Your task to perform on an android device: delete a single message in the gmail app Image 0: 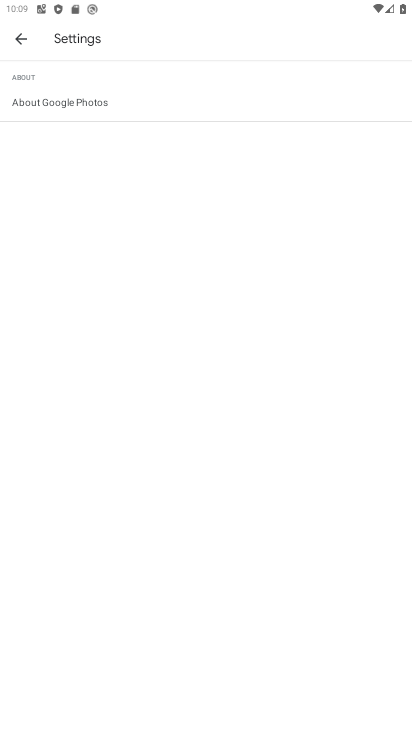
Step 0: press home button
Your task to perform on an android device: delete a single message in the gmail app Image 1: 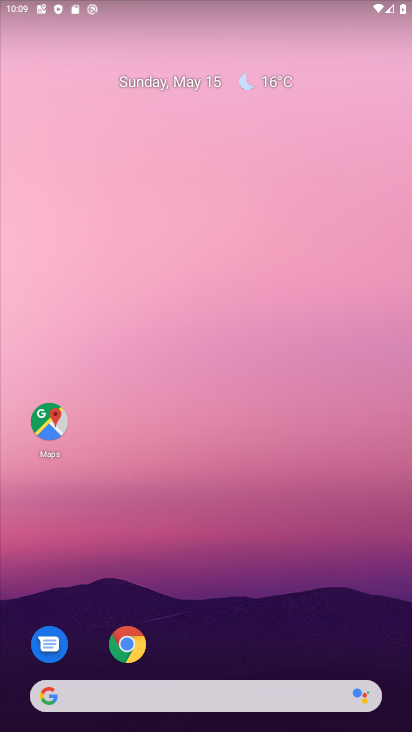
Step 1: drag from (314, 606) to (271, 115)
Your task to perform on an android device: delete a single message in the gmail app Image 2: 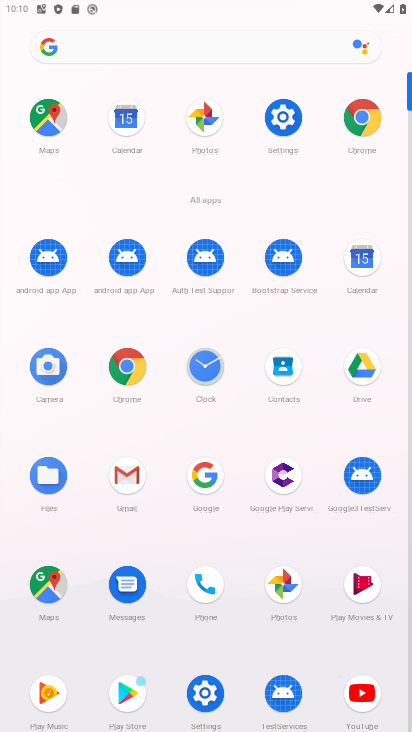
Step 2: click (115, 471)
Your task to perform on an android device: delete a single message in the gmail app Image 3: 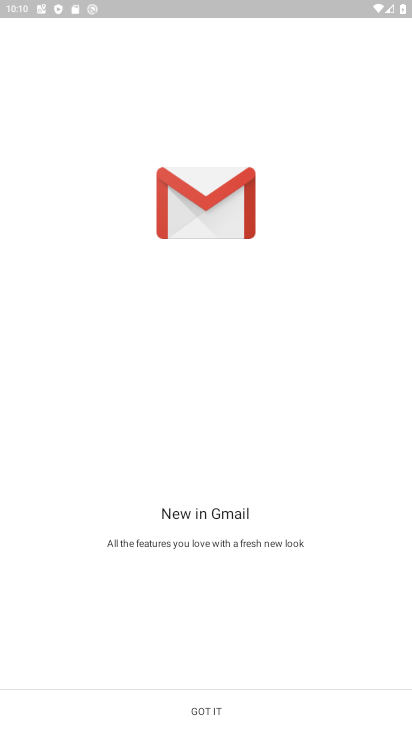
Step 3: click (215, 708)
Your task to perform on an android device: delete a single message in the gmail app Image 4: 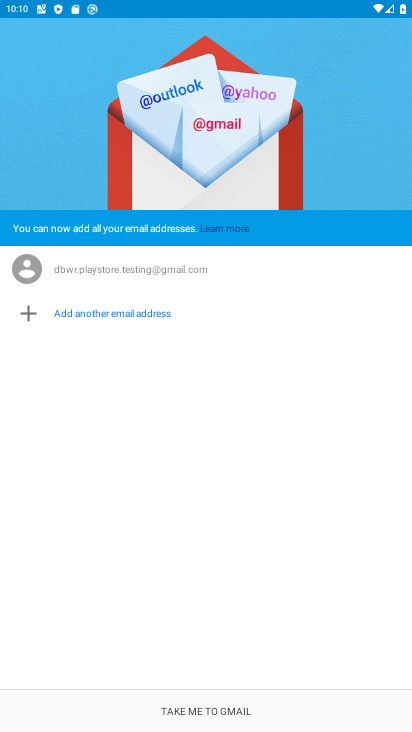
Step 4: click (214, 708)
Your task to perform on an android device: delete a single message in the gmail app Image 5: 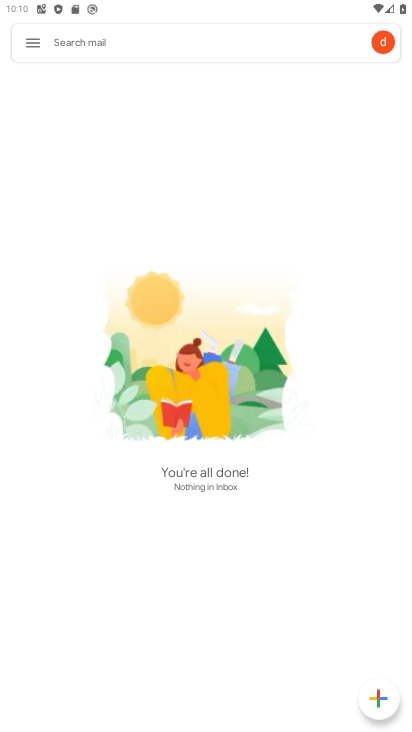
Step 5: click (27, 42)
Your task to perform on an android device: delete a single message in the gmail app Image 6: 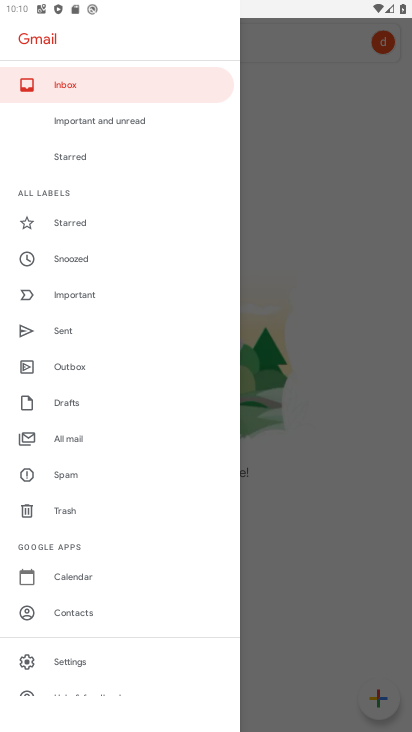
Step 6: click (105, 432)
Your task to perform on an android device: delete a single message in the gmail app Image 7: 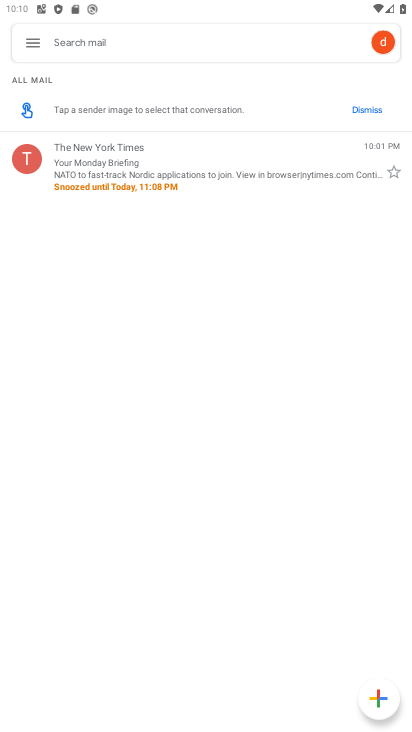
Step 7: task complete